Your task to perform on an android device: check storage Image 0: 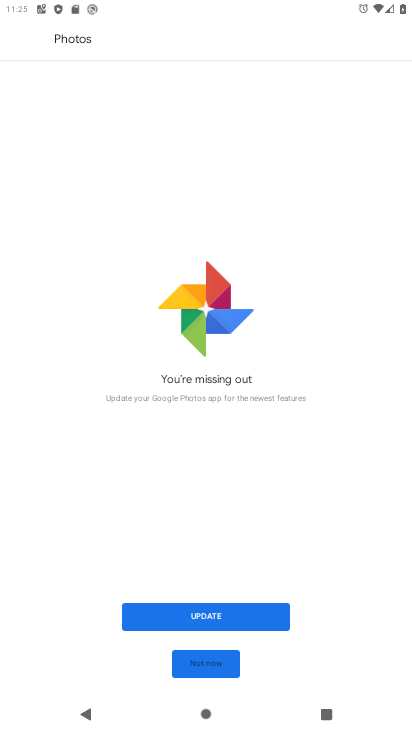
Step 0: press home button
Your task to perform on an android device: check storage Image 1: 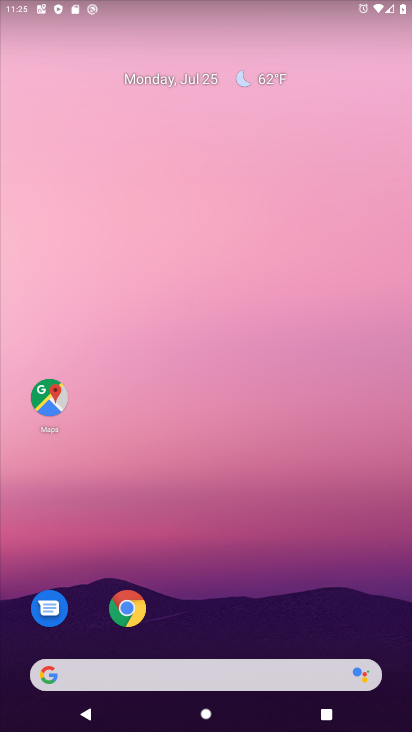
Step 1: drag from (219, 630) to (212, 96)
Your task to perform on an android device: check storage Image 2: 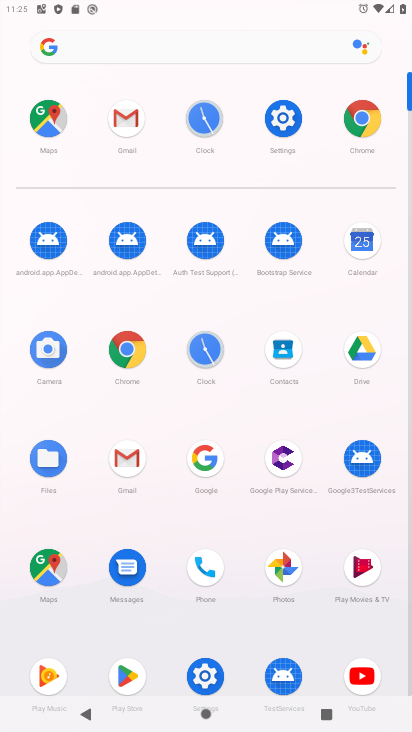
Step 2: click (209, 670)
Your task to perform on an android device: check storage Image 3: 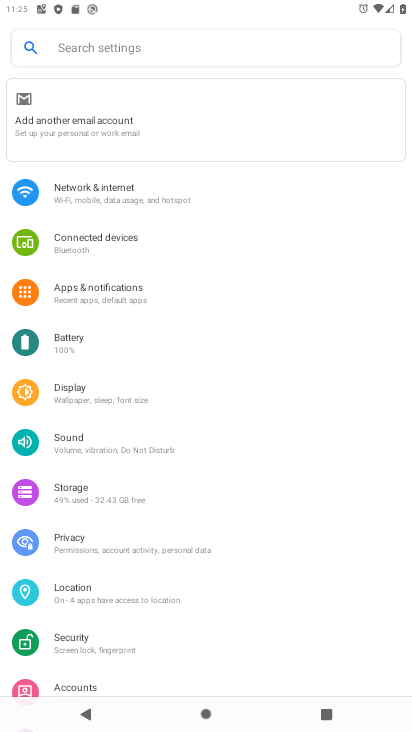
Step 3: click (97, 497)
Your task to perform on an android device: check storage Image 4: 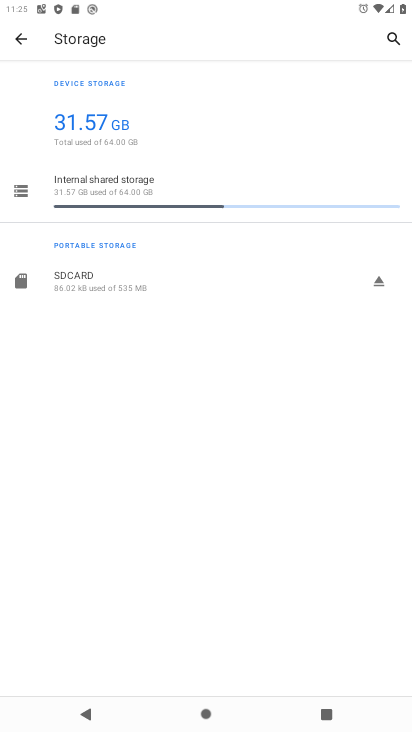
Step 4: click (116, 180)
Your task to perform on an android device: check storage Image 5: 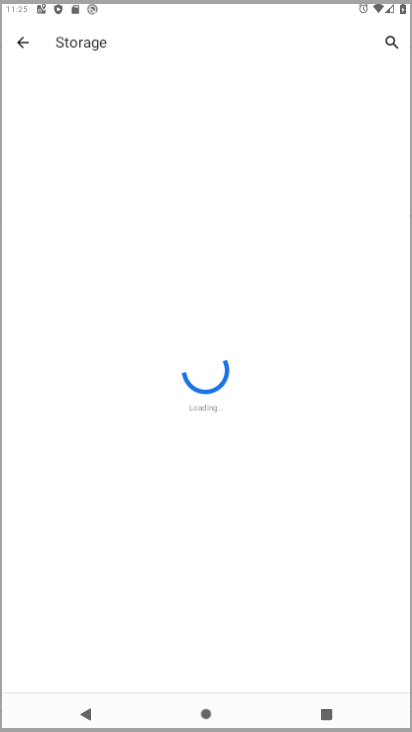
Step 5: click (117, 192)
Your task to perform on an android device: check storage Image 6: 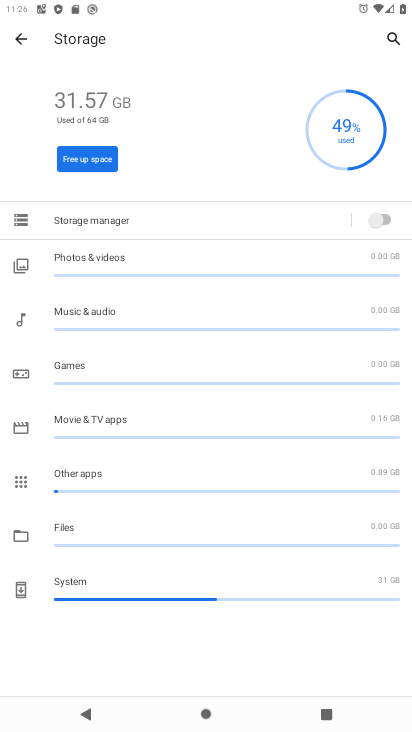
Step 6: task complete